Your task to perform on an android device: turn off notifications settings in the gmail app Image 0: 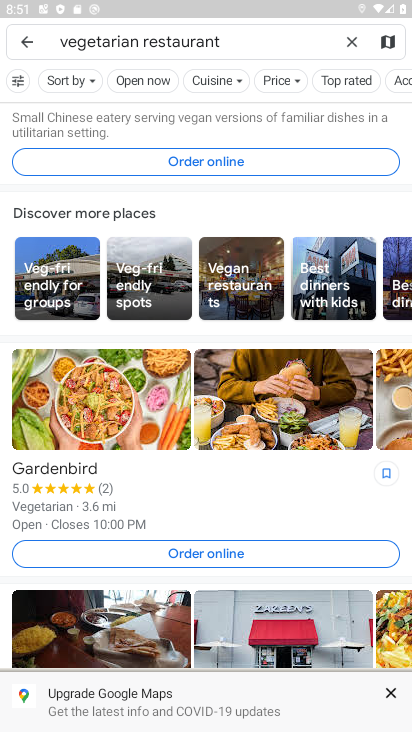
Step 0: press home button
Your task to perform on an android device: turn off notifications settings in the gmail app Image 1: 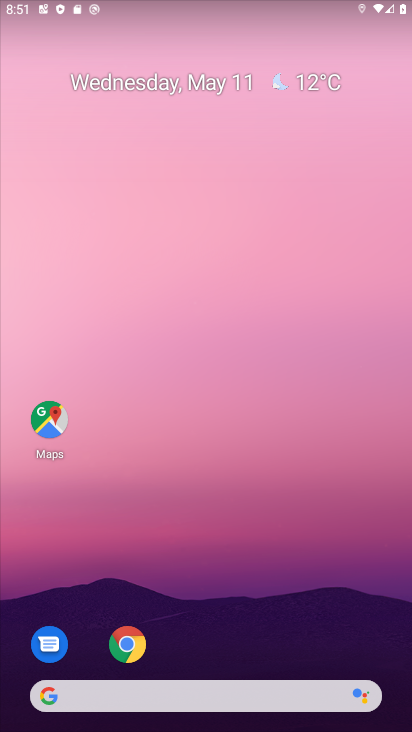
Step 1: drag from (207, 587) to (184, 180)
Your task to perform on an android device: turn off notifications settings in the gmail app Image 2: 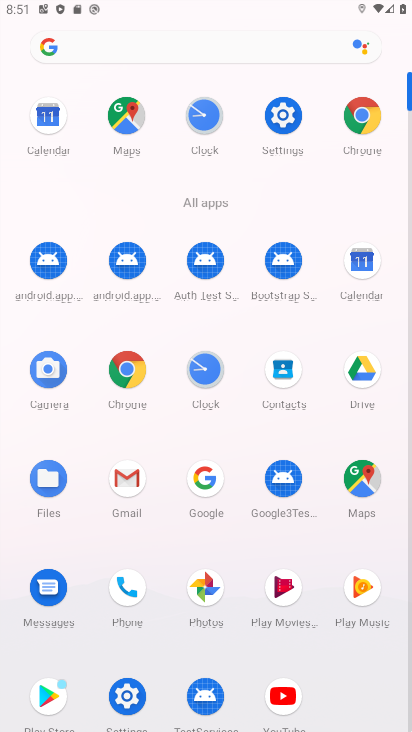
Step 2: click (126, 481)
Your task to perform on an android device: turn off notifications settings in the gmail app Image 3: 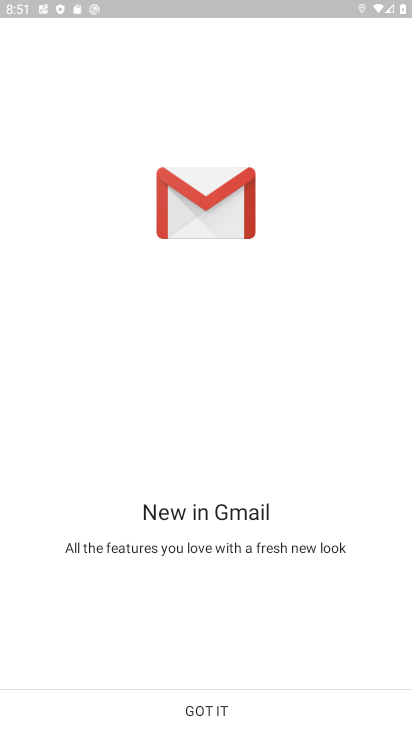
Step 3: click (195, 714)
Your task to perform on an android device: turn off notifications settings in the gmail app Image 4: 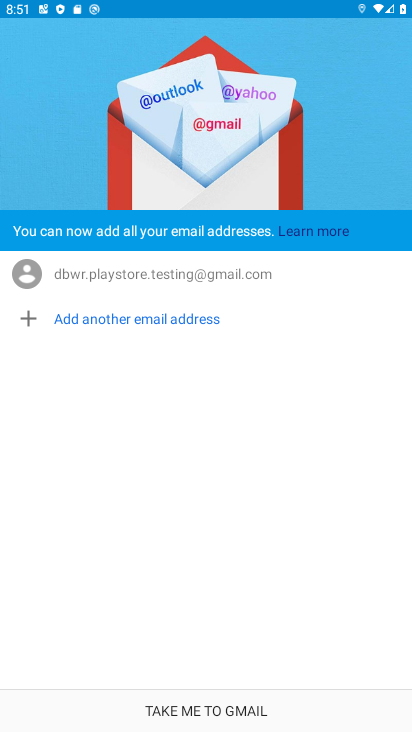
Step 4: click (196, 714)
Your task to perform on an android device: turn off notifications settings in the gmail app Image 5: 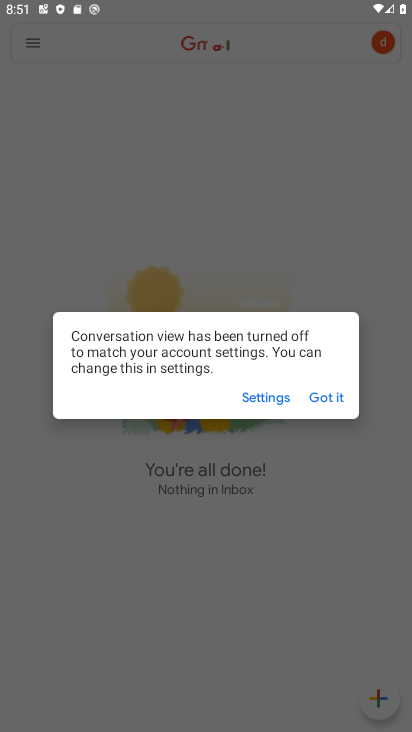
Step 5: click (323, 398)
Your task to perform on an android device: turn off notifications settings in the gmail app Image 6: 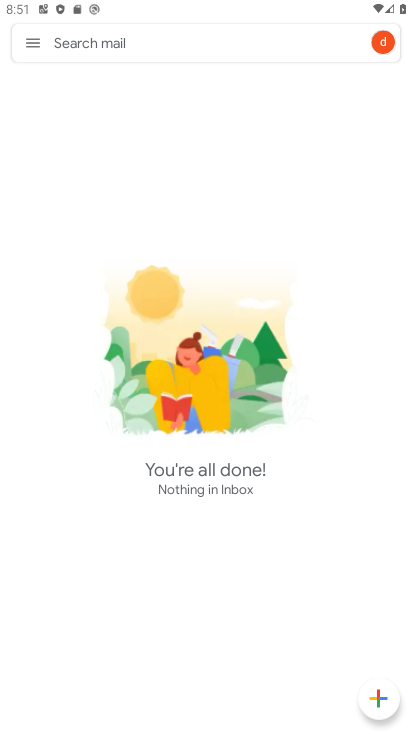
Step 6: click (35, 42)
Your task to perform on an android device: turn off notifications settings in the gmail app Image 7: 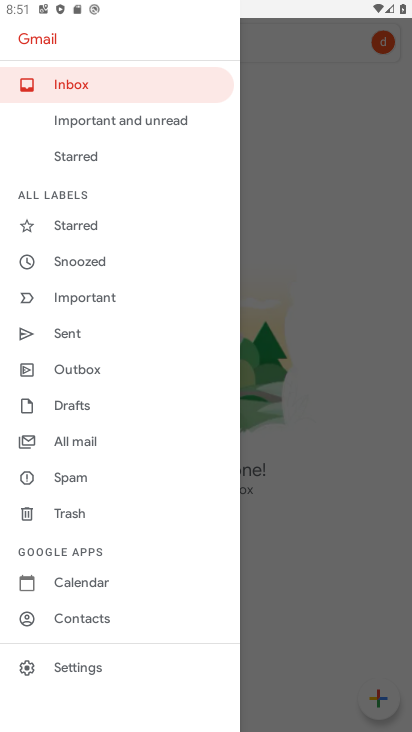
Step 7: click (75, 666)
Your task to perform on an android device: turn off notifications settings in the gmail app Image 8: 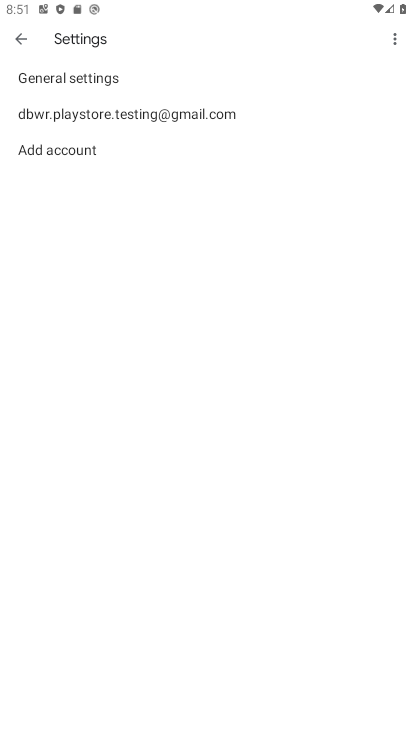
Step 8: click (58, 108)
Your task to perform on an android device: turn off notifications settings in the gmail app Image 9: 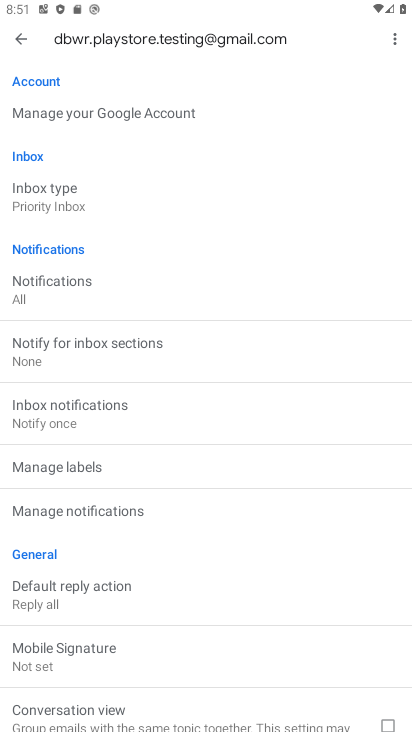
Step 9: click (31, 511)
Your task to perform on an android device: turn off notifications settings in the gmail app Image 10: 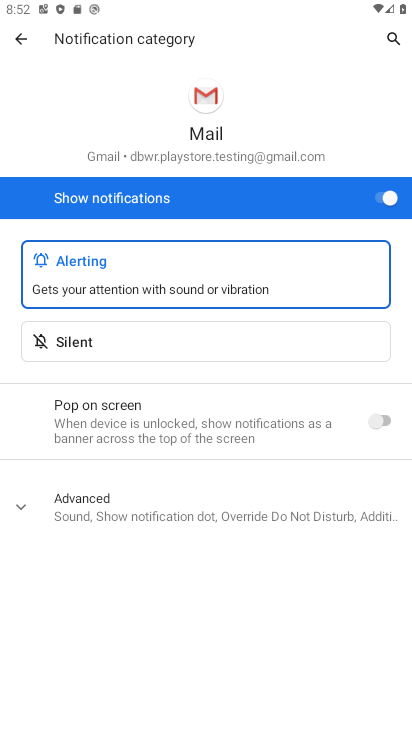
Step 10: click (384, 197)
Your task to perform on an android device: turn off notifications settings in the gmail app Image 11: 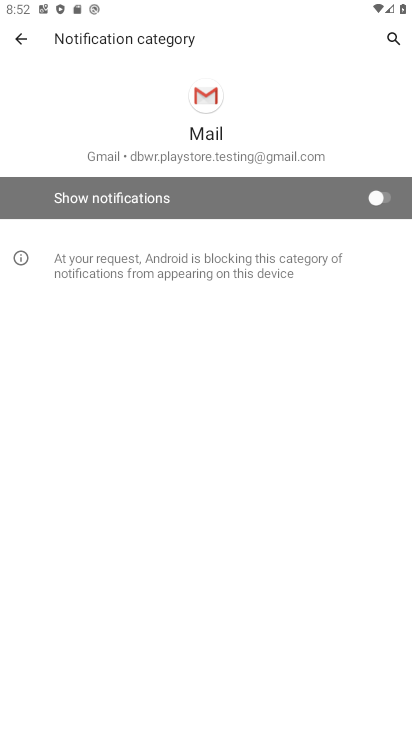
Step 11: task complete